Your task to perform on an android device: toggle pop-ups in chrome Image 0: 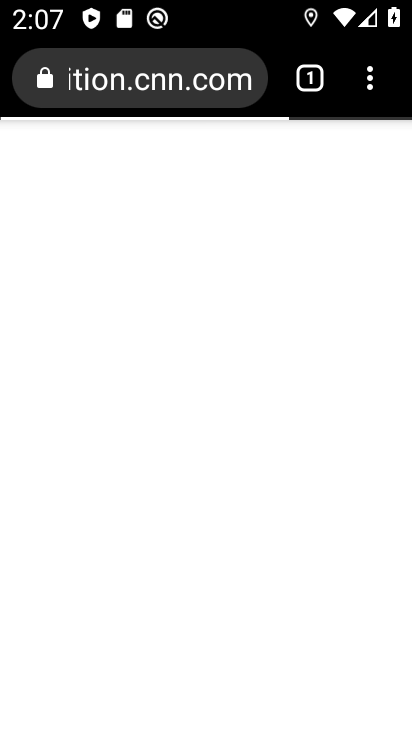
Step 0: press home button
Your task to perform on an android device: toggle pop-ups in chrome Image 1: 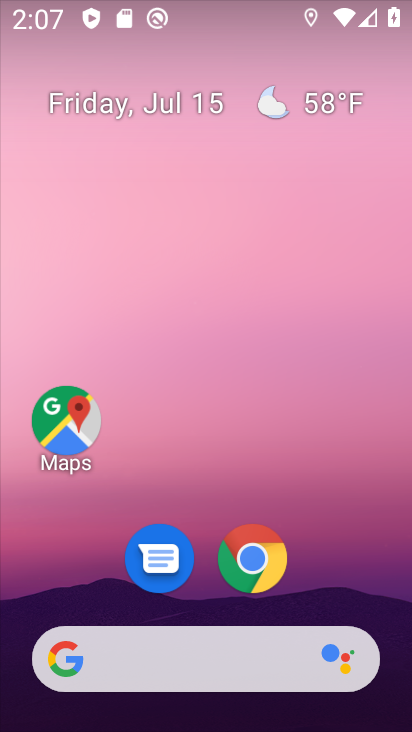
Step 1: drag from (339, 580) to (397, 119)
Your task to perform on an android device: toggle pop-ups in chrome Image 2: 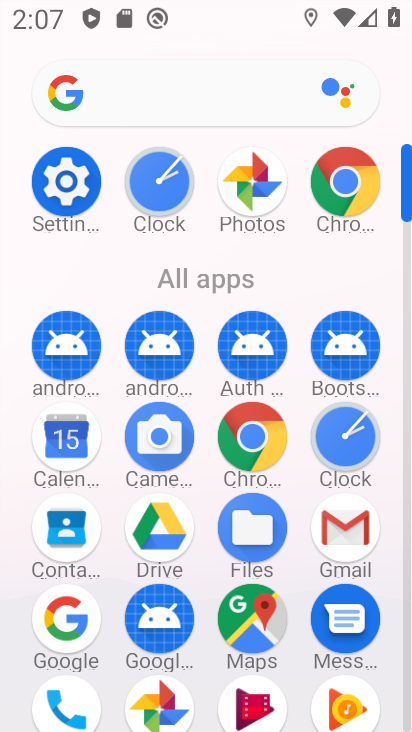
Step 2: click (347, 184)
Your task to perform on an android device: toggle pop-ups in chrome Image 3: 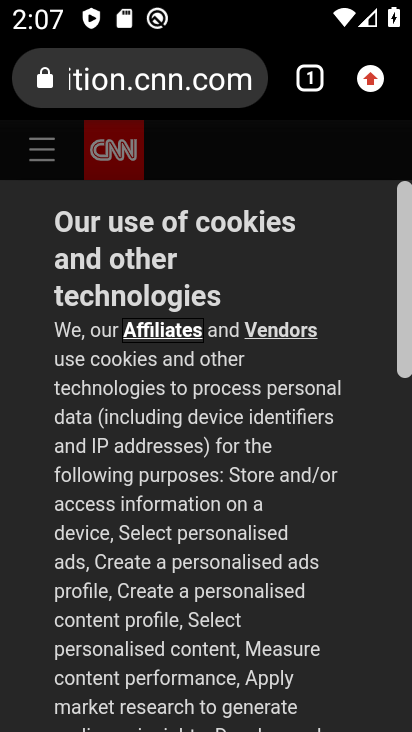
Step 3: click (374, 83)
Your task to perform on an android device: toggle pop-ups in chrome Image 4: 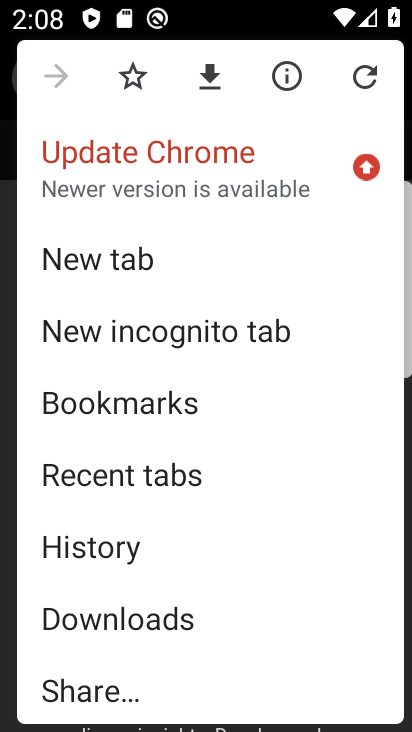
Step 4: drag from (312, 486) to (320, 431)
Your task to perform on an android device: toggle pop-ups in chrome Image 5: 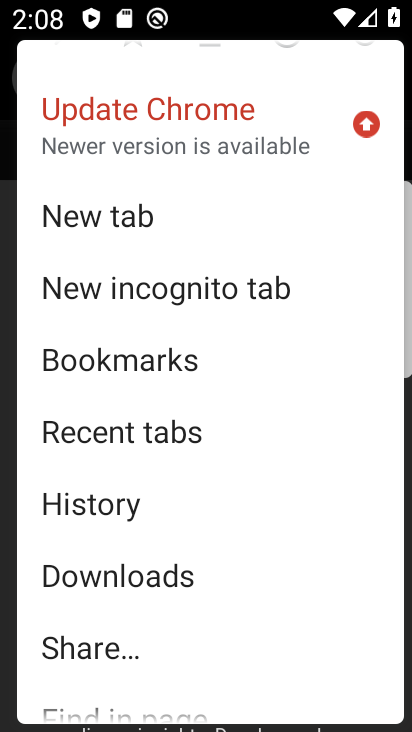
Step 5: drag from (324, 518) to (333, 466)
Your task to perform on an android device: toggle pop-ups in chrome Image 6: 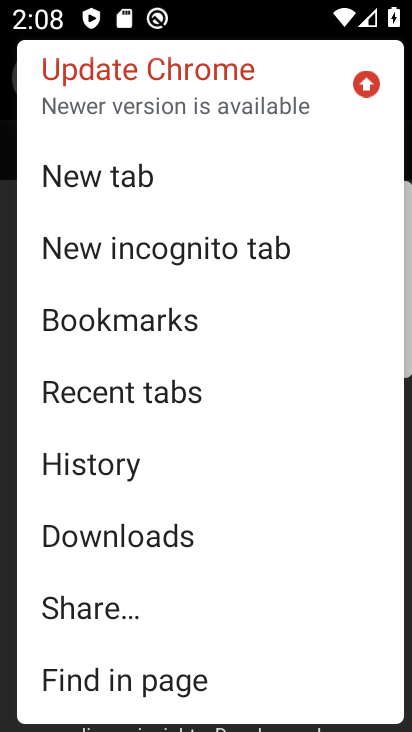
Step 6: drag from (335, 527) to (337, 418)
Your task to perform on an android device: toggle pop-ups in chrome Image 7: 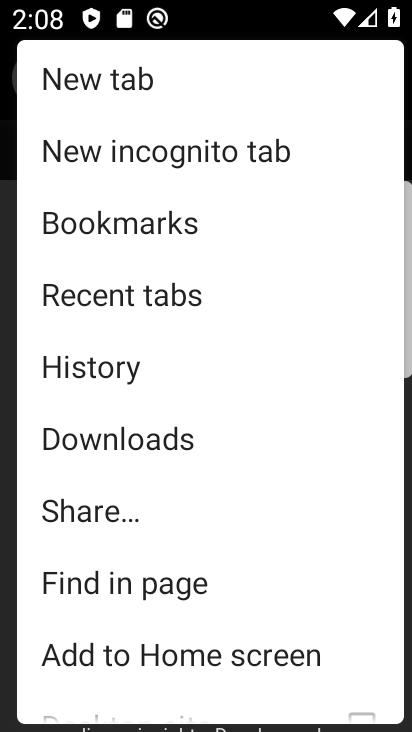
Step 7: drag from (339, 495) to (345, 407)
Your task to perform on an android device: toggle pop-ups in chrome Image 8: 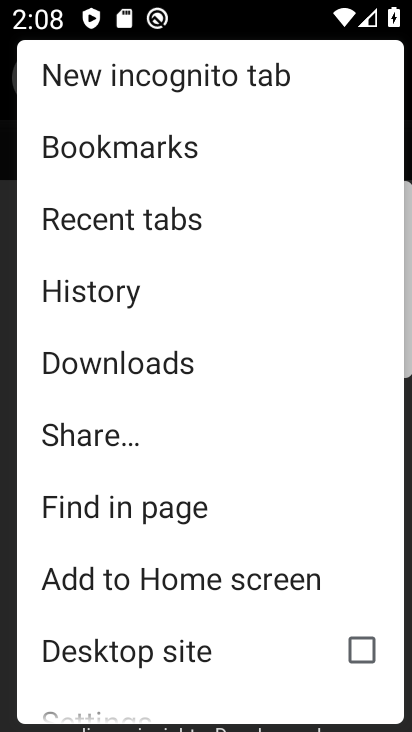
Step 8: drag from (342, 494) to (341, 378)
Your task to perform on an android device: toggle pop-ups in chrome Image 9: 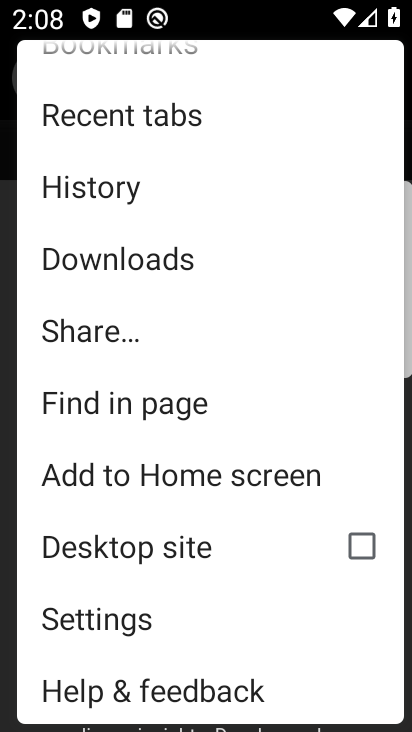
Step 9: click (255, 620)
Your task to perform on an android device: toggle pop-ups in chrome Image 10: 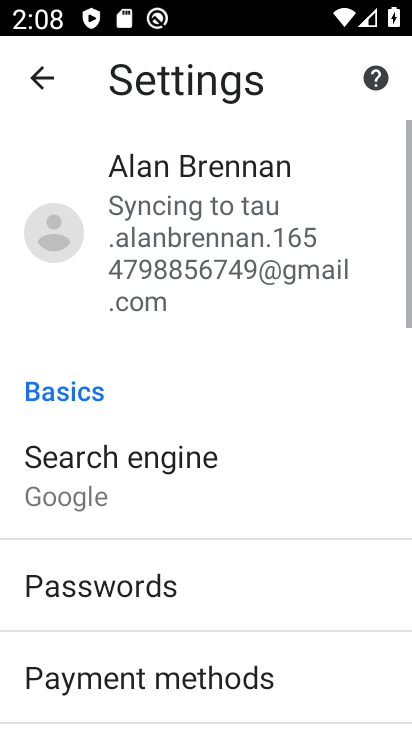
Step 10: drag from (353, 568) to (360, 484)
Your task to perform on an android device: toggle pop-ups in chrome Image 11: 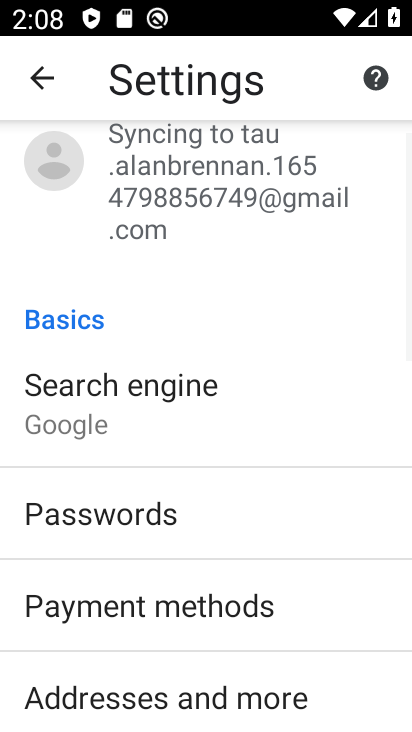
Step 11: drag from (354, 551) to (359, 465)
Your task to perform on an android device: toggle pop-ups in chrome Image 12: 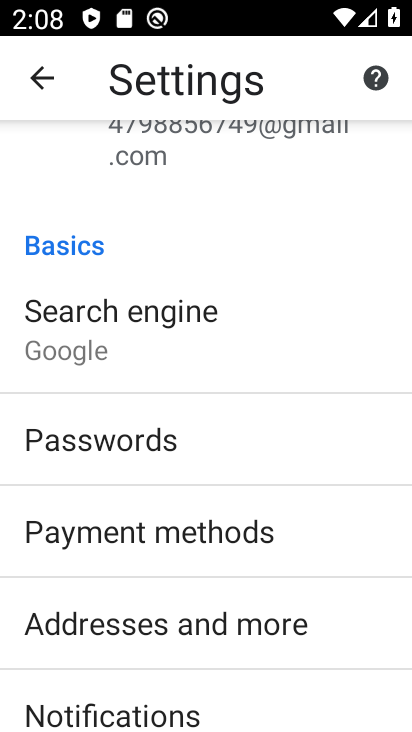
Step 12: drag from (355, 542) to (355, 465)
Your task to perform on an android device: toggle pop-ups in chrome Image 13: 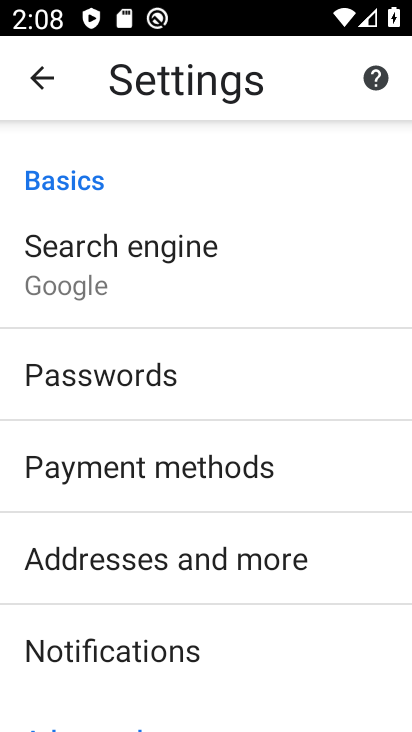
Step 13: drag from (354, 561) to (356, 476)
Your task to perform on an android device: toggle pop-ups in chrome Image 14: 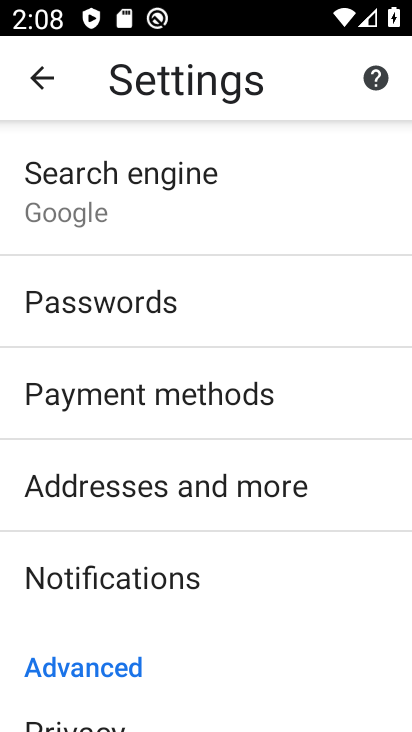
Step 14: drag from (345, 559) to (345, 467)
Your task to perform on an android device: toggle pop-ups in chrome Image 15: 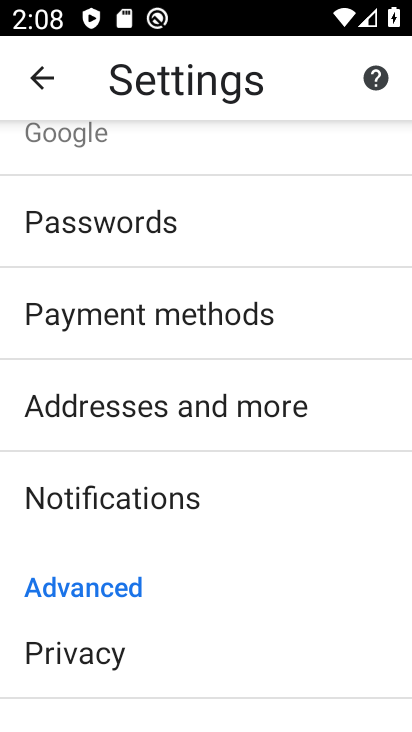
Step 15: drag from (337, 560) to (337, 463)
Your task to perform on an android device: toggle pop-ups in chrome Image 16: 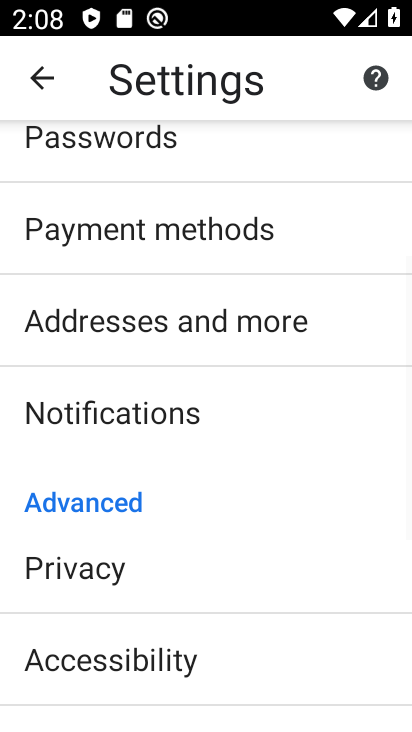
Step 16: drag from (334, 552) to (354, 467)
Your task to perform on an android device: toggle pop-ups in chrome Image 17: 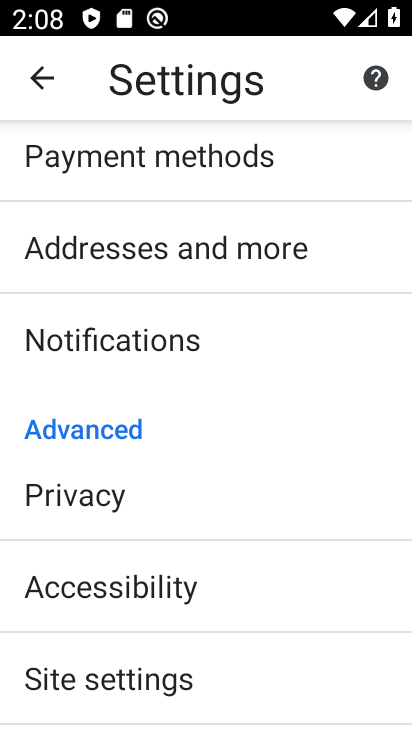
Step 17: drag from (354, 549) to (357, 475)
Your task to perform on an android device: toggle pop-ups in chrome Image 18: 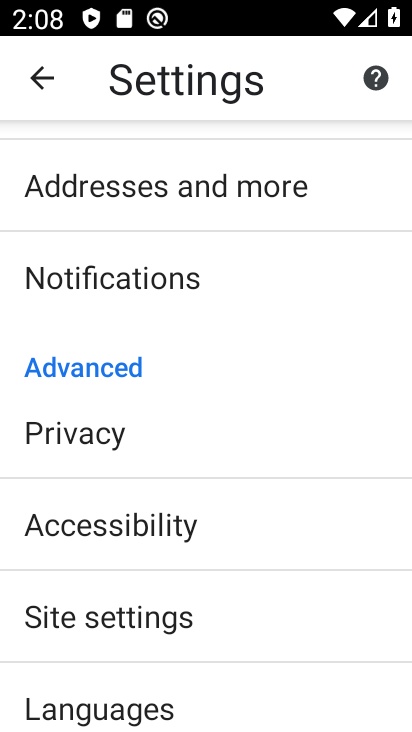
Step 18: click (359, 588)
Your task to perform on an android device: toggle pop-ups in chrome Image 19: 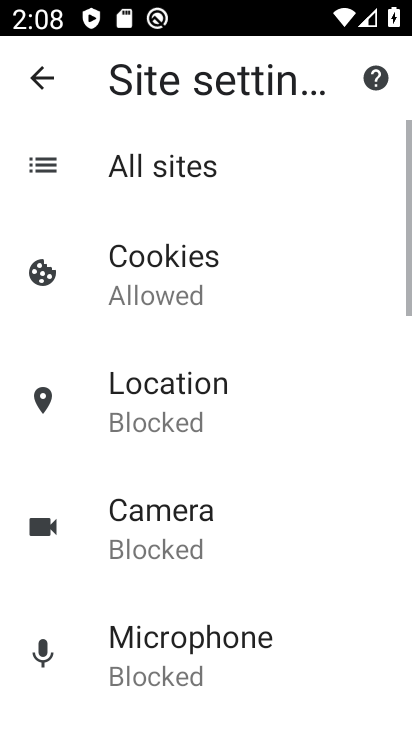
Step 19: drag from (359, 588) to (360, 500)
Your task to perform on an android device: toggle pop-ups in chrome Image 20: 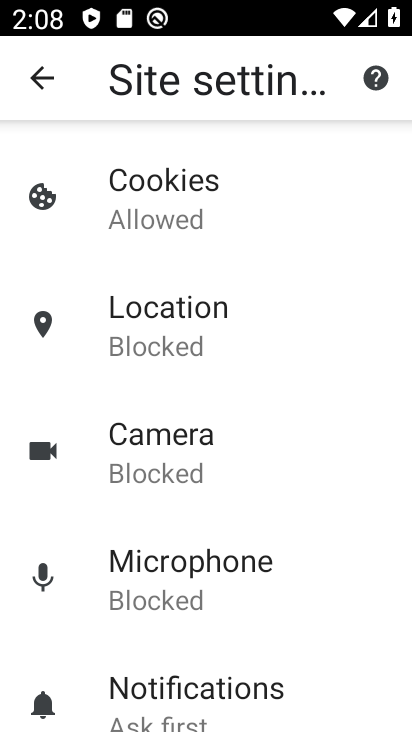
Step 20: drag from (342, 575) to (345, 506)
Your task to perform on an android device: toggle pop-ups in chrome Image 21: 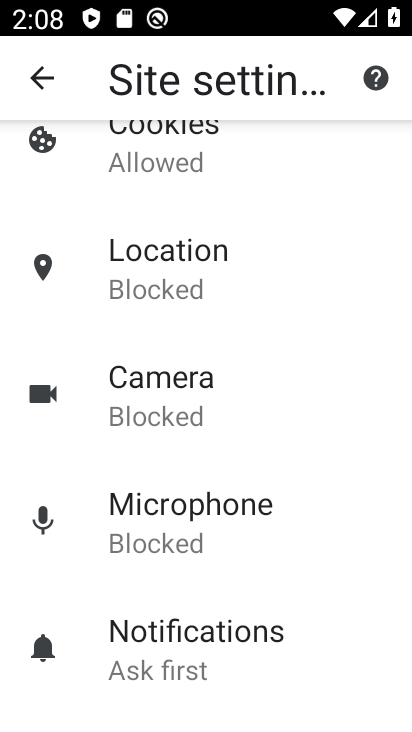
Step 21: drag from (343, 594) to (347, 473)
Your task to perform on an android device: toggle pop-ups in chrome Image 22: 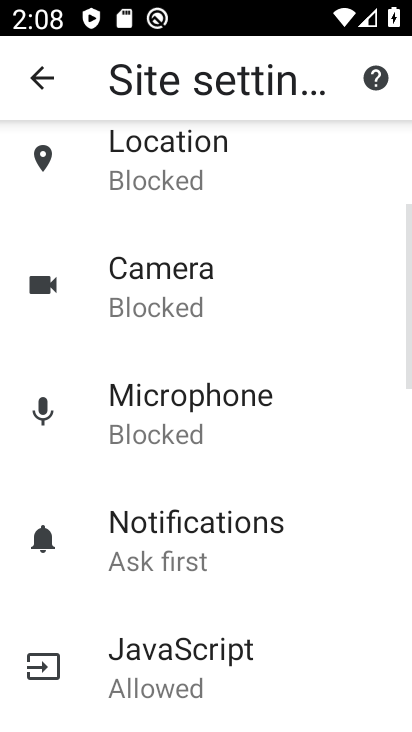
Step 22: drag from (350, 609) to (354, 490)
Your task to perform on an android device: toggle pop-ups in chrome Image 23: 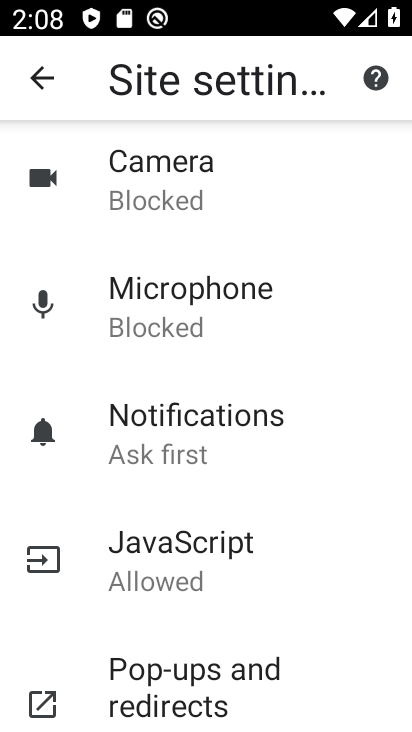
Step 23: drag from (360, 636) to (365, 491)
Your task to perform on an android device: toggle pop-ups in chrome Image 24: 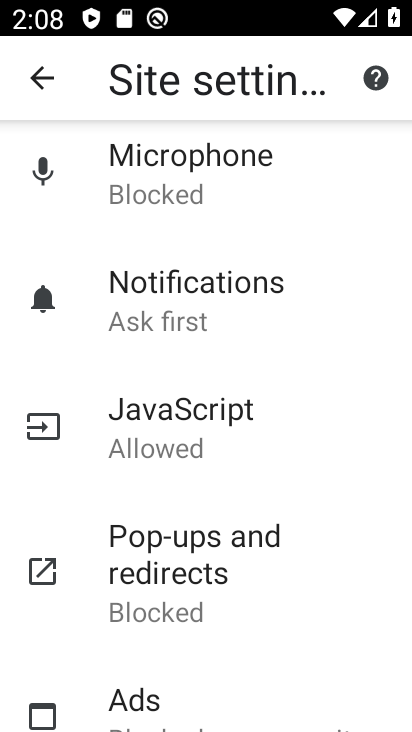
Step 24: drag from (344, 642) to (356, 526)
Your task to perform on an android device: toggle pop-ups in chrome Image 25: 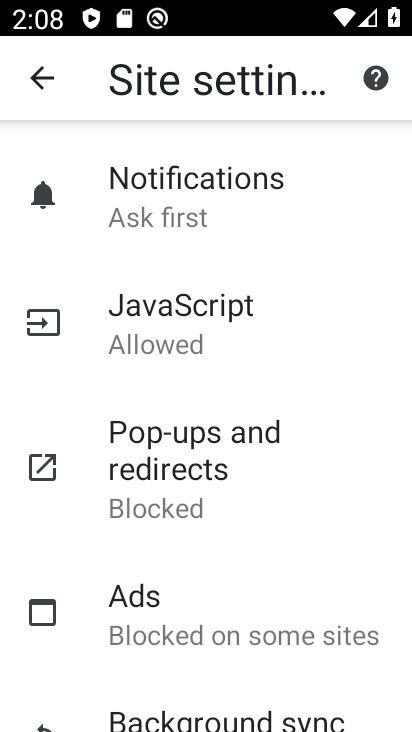
Step 25: click (331, 494)
Your task to perform on an android device: toggle pop-ups in chrome Image 26: 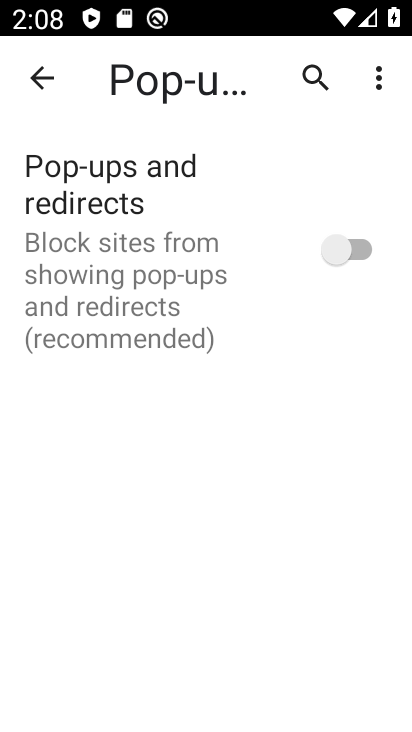
Step 26: click (316, 239)
Your task to perform on an android device: toggle pop-ups in chrome Image 27: 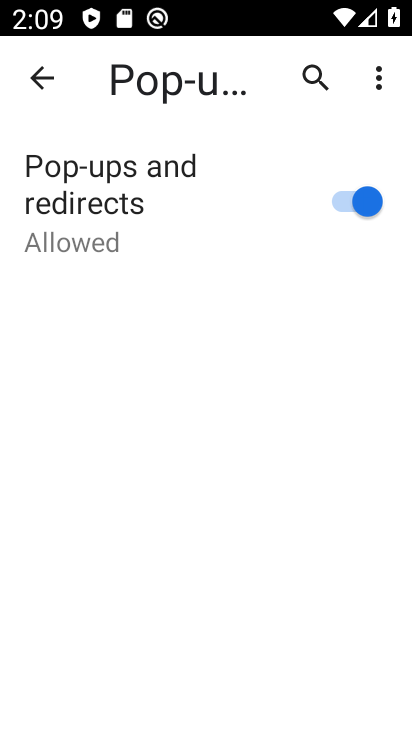
Step 27: task complete